Your task to perform on an android device: read, delete, or share a saved page in the chrome app Image 0: 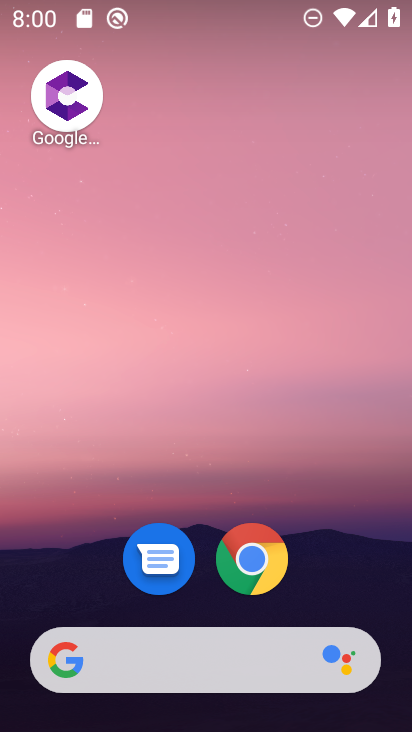
Step 0: click (262, 568)
Your task to perform on an android device: read, delete, or share a saved page in the chrome app Image 1: 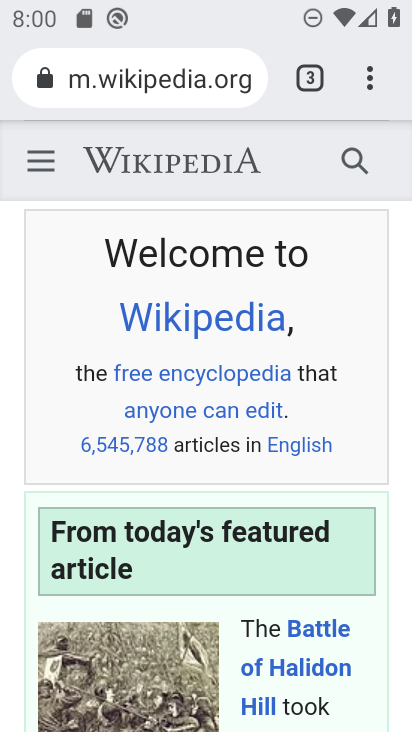
Step 1: drag from (366, 77) to (86, 500)
Your task to perform on an android device: read, delete, or share a saved page in the chrome app Image 2: 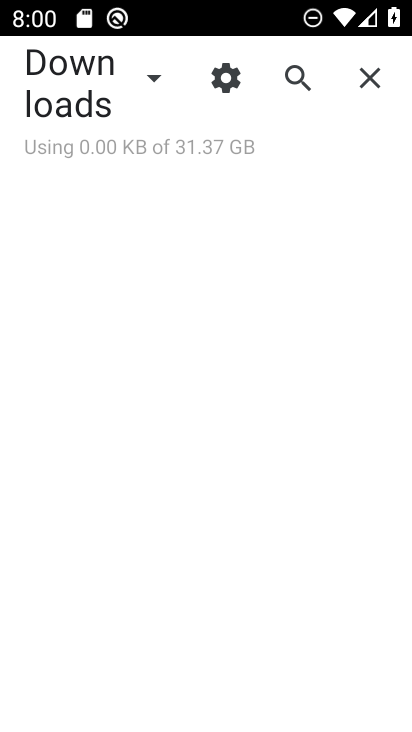
Step 2: click (147, 70)
Your task to perform on an android device: read, delete, or share a saved page in the chrome app Image 3: 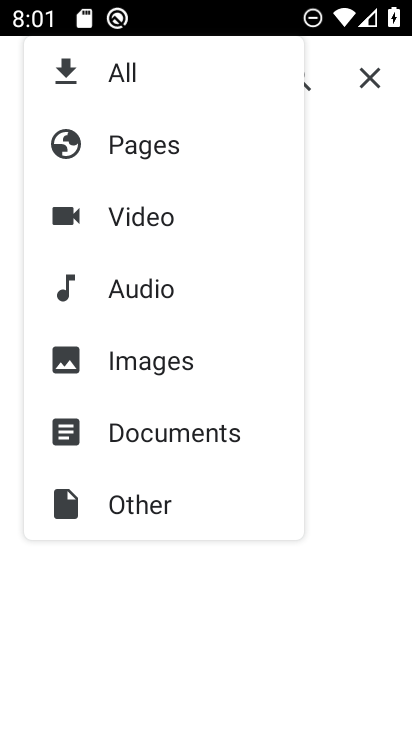
Step 3: click (158, 145)
Your task to perform on an android device: read, delete, or share a saved page in the chrome app Image 4: 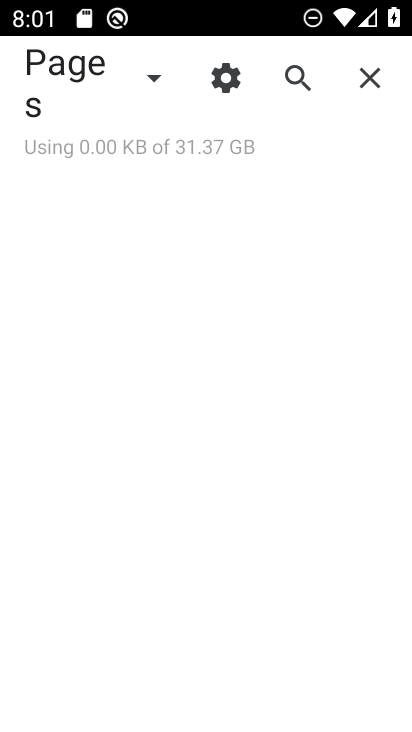
Step 4: task complete